Your task to perform on an android device: What's the weather going to be this weekend? Image 0: 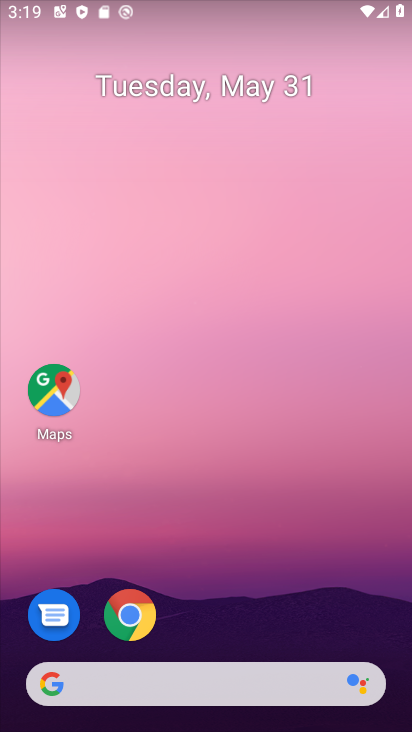
Step 0: drag from (243, 696) to (143, 124)
Your task to perform on an android device: What's the weather going to be this weekend? Image 1: 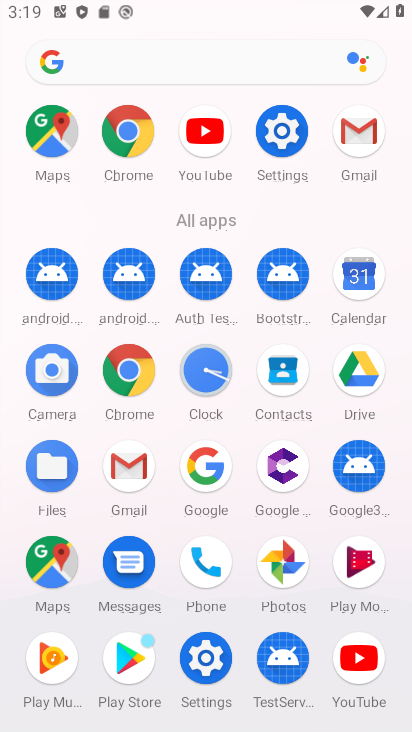
Step 1: press back button
Your task to perform on an android device: What's the weather going to be this weekend? Image 2: 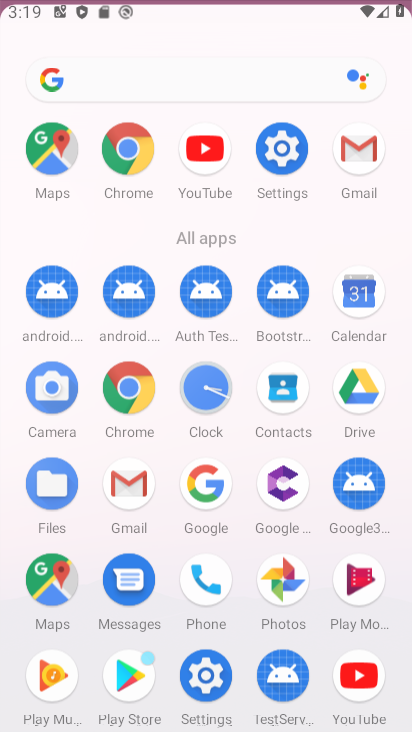
Step 2: press back button
Your task to perform on an android device: What's the weather going to be this weekend? Image 3: 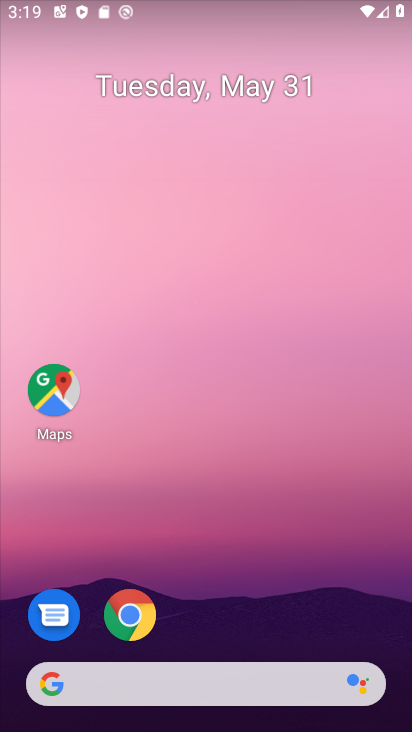
Step 3: press back button
Your task to perform on an android device: What's the weather going to be this weekend? Image 4: 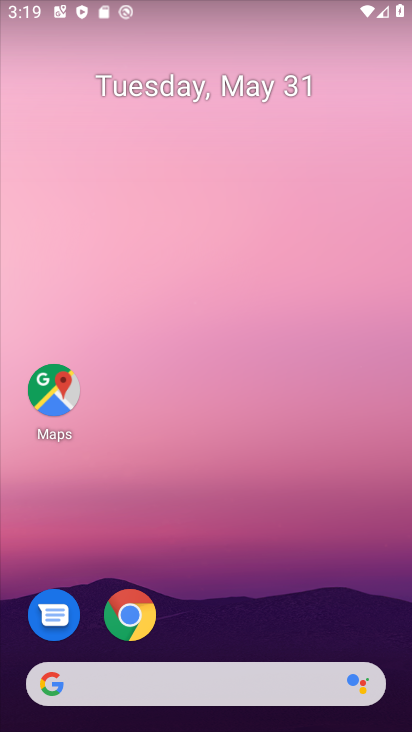
Step 4: press back button
Your task to perform on an android device: What's the weather going to be this weekend? Image 5: 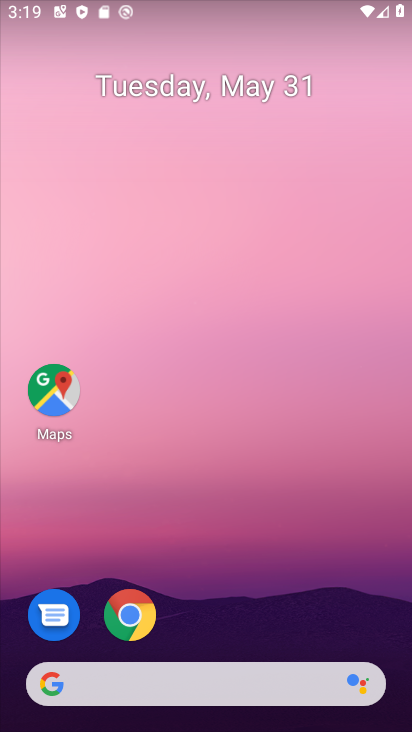
Step 5: drag from (11, 176) to (402, 431)
Your task to perform on an android device: What's the weather going to be this weekend? Image 6: 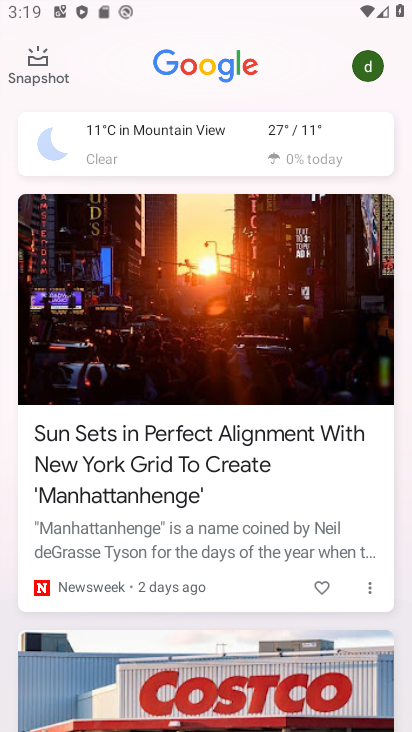
Step 6: click (158, 140)
Your task to perform on an android device: What's the weather going to be this weekend? Image 7: 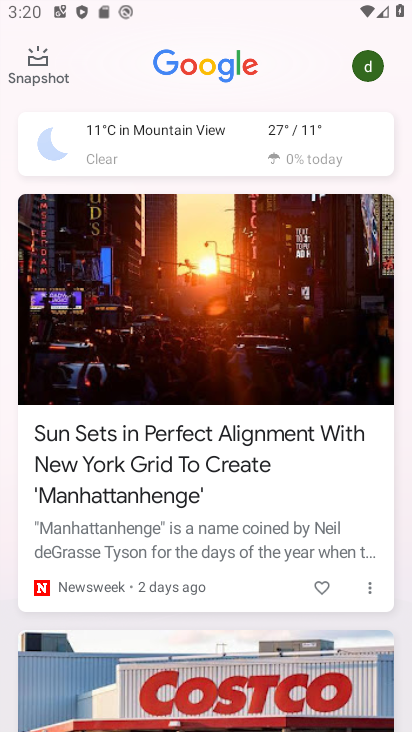
Step 7: click (158, 140)
Your task to perform on an android device: What's the weather going to be this weekend? Image 8: 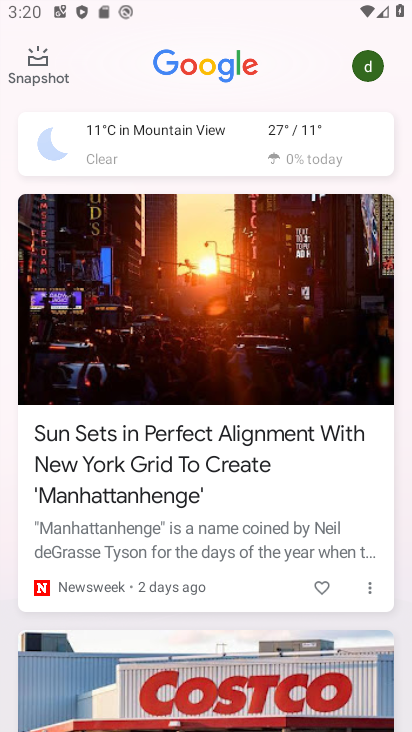
Step 8: click (158, 139)
Your task to perform on an android device: What's the weather going to be this weekend? Image 9: 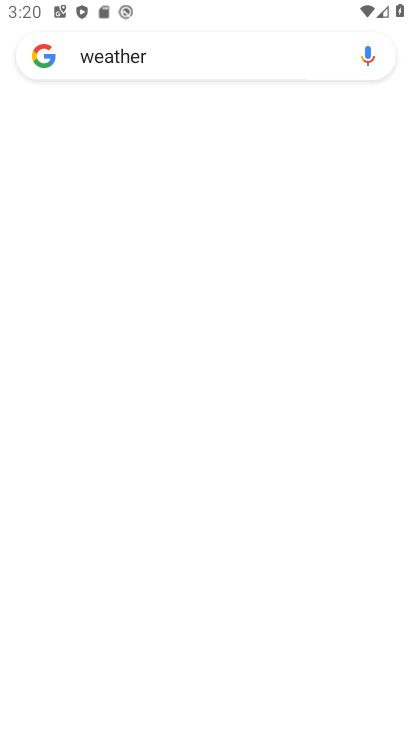
Step 9: click (158, 138)
Your task to perform on an android device: What's the weather going to be this weekend? Image 10: 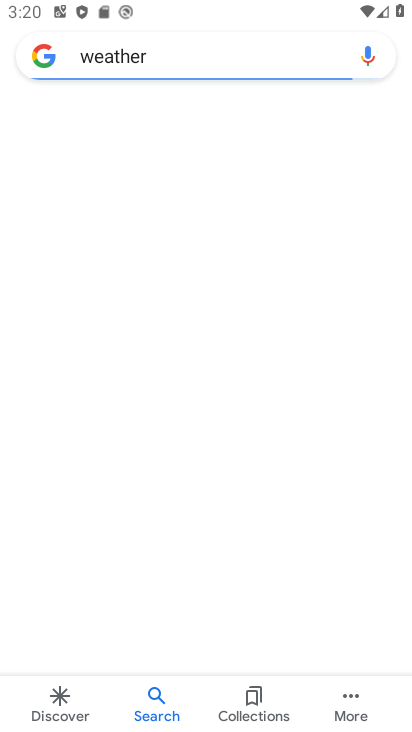
Step 10: click (158, 138)
Your task to perform on an android device: What's the weather going to be this weekend? Image 11: 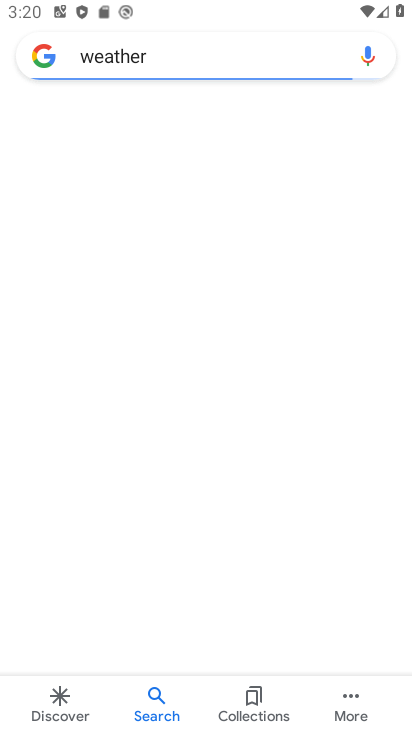
Step 11: click (158, 138)
Your task to perform on an android device: What's the weather going to be this weekend? Image 12: 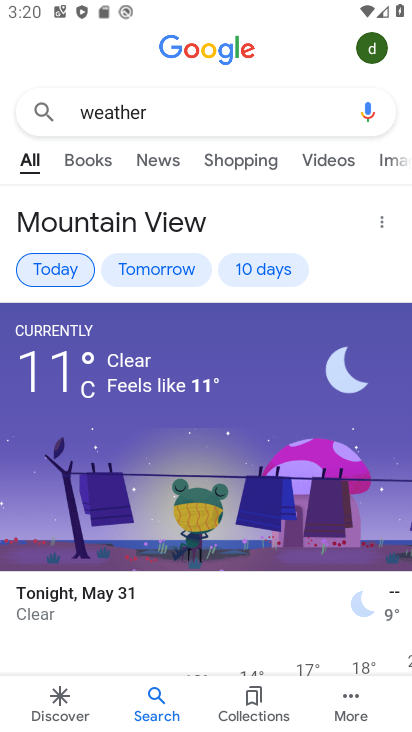
Step 12: click (260, 274)
Your task to perform on an android device: What's the weather going to be this weekend? Image 13: 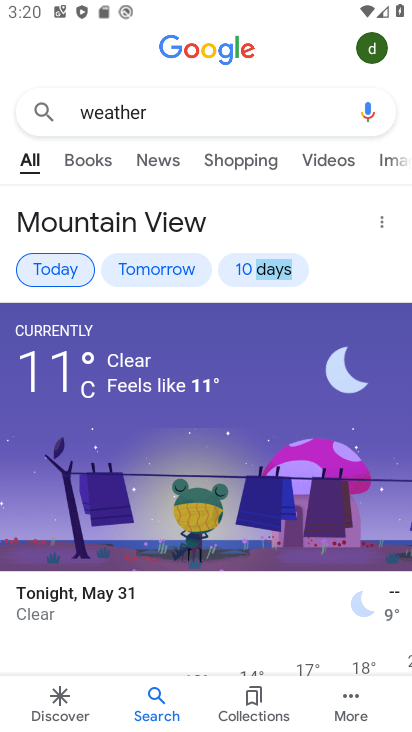
Step 13: click (260, 274)
Your task to perform on an android device: What's the weather going to be this weekend? Image 14: 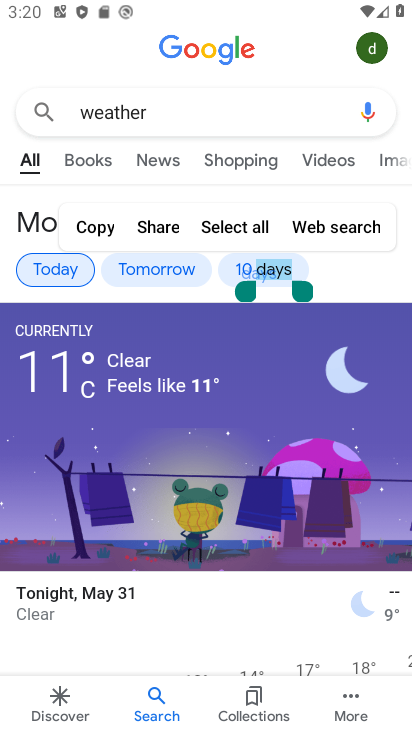
Step 14: click (261, 273)
Your task to perform on an android device: What's the weather going to be this weekend? Image 15: 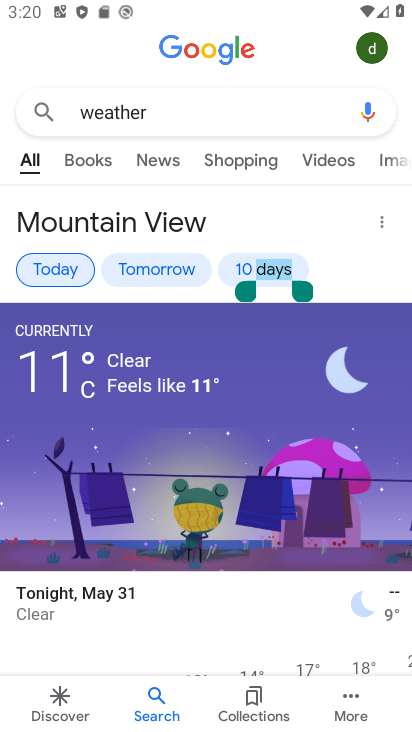
Step 15: click (287, 397)
Your task to perform on an android device: What's the weather going to be this weekend? Image 16: 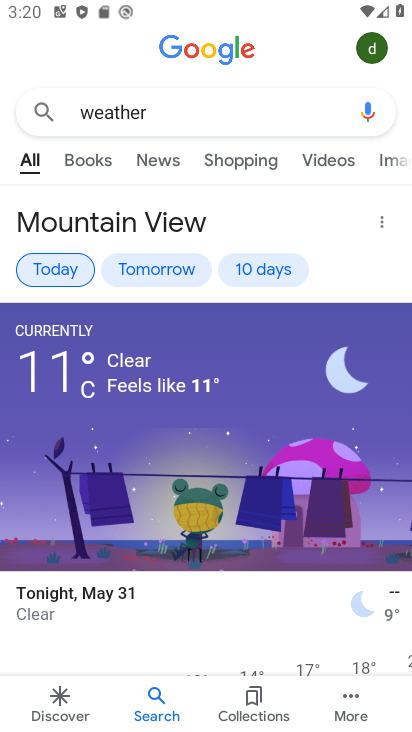
Step 16: click (265, 337)
Your task to perform on an android device: What's the weather going to be this weekend? Image 17: 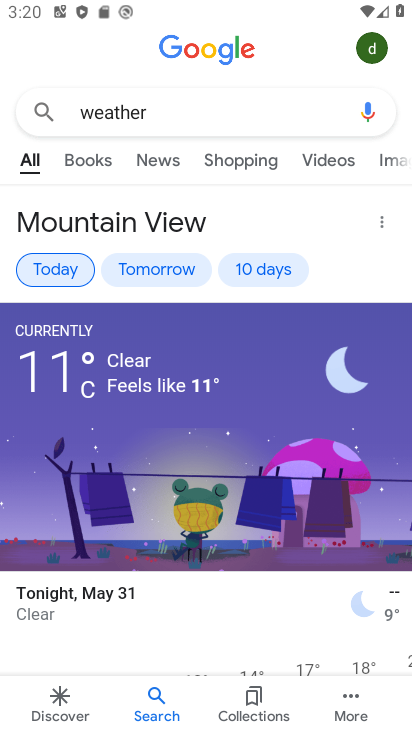
Step 17: click (265, 337)
Your task to perform on an android device: What's the weather going to be this weekend? Image 18: 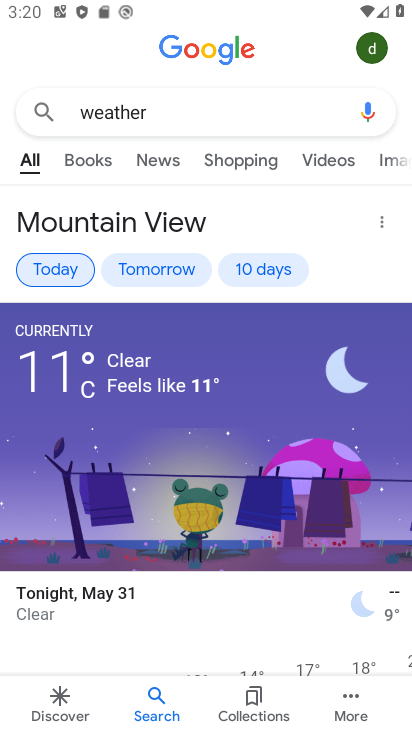
Step 18: click (266, 325)
Your task to perform on an android device: What's the weather going to be this weekend? Image 19: 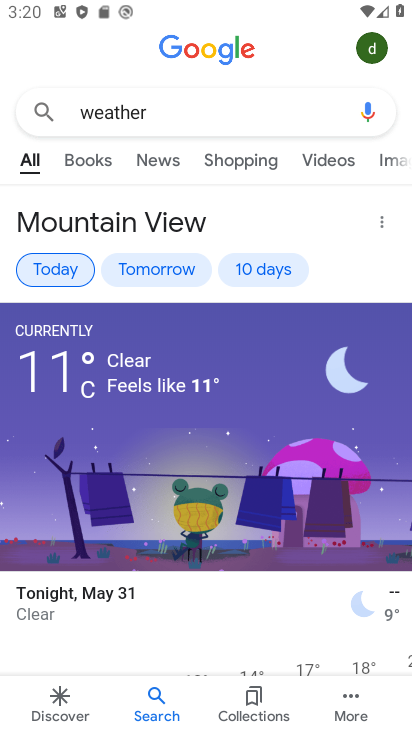
Step 19: click (251, 270)
Your task to perform on an android device: What's the weather going to be this weekend? Image 20: 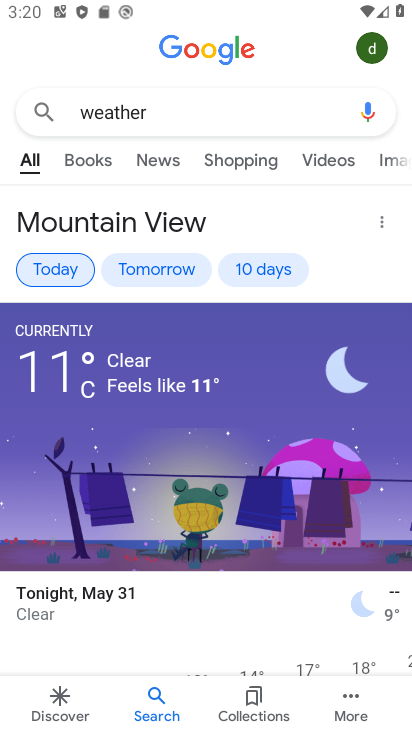
Step 20: click (251, 270)
Your task to perform on an android device: What's the weather going to be this weekend? Image 21: 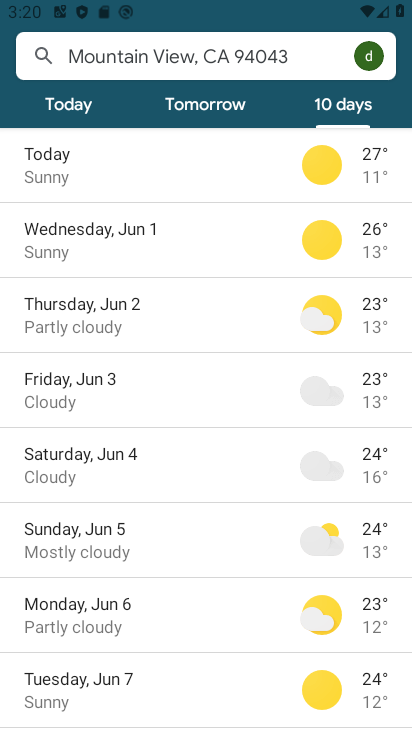
Step 21: task complete